Your task to perform on an android device: Open Google Chrome and click the shortcut for Amazon.com Image 0: 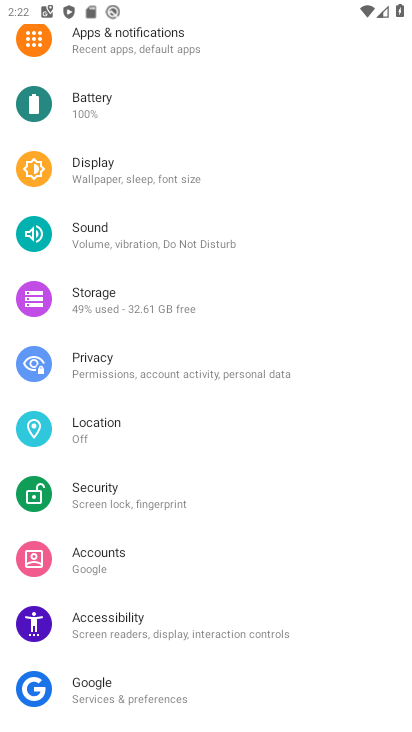
Step 0: press home button
Your task to perform on an android device: Open Google Chrome and click the shortcut for Amazon.com Image 1: 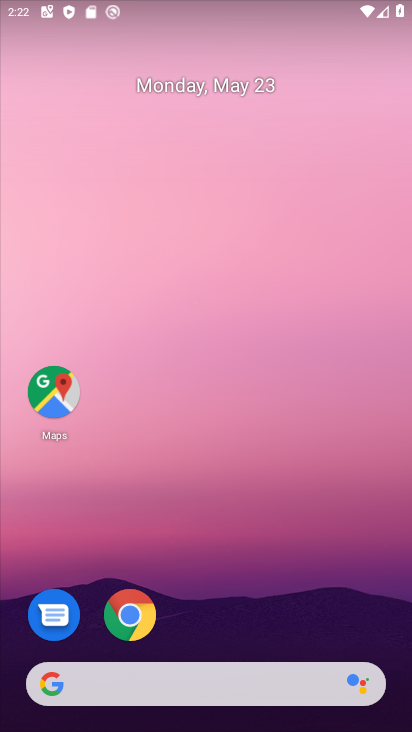
Step 1: click (123, 620)
Your task to perform on an android device: Open Google Chrome and click the shortcut for Amazon.com Image 2: 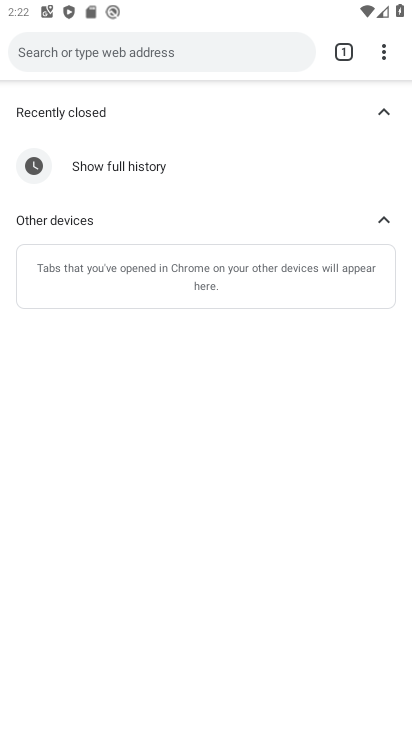
Step 2: click (384, 52)
Your task to perform on an android device: Open Google Chrome and click the shortcut for Amazon.com Image 3: 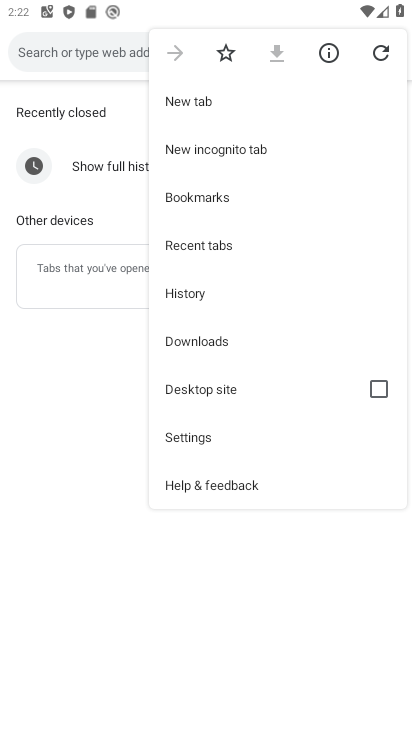
Step 3: click (184, 102)
Your task to perform on an android device: Open Google Chrome and click the shortcut for Amazon.com Image 4: 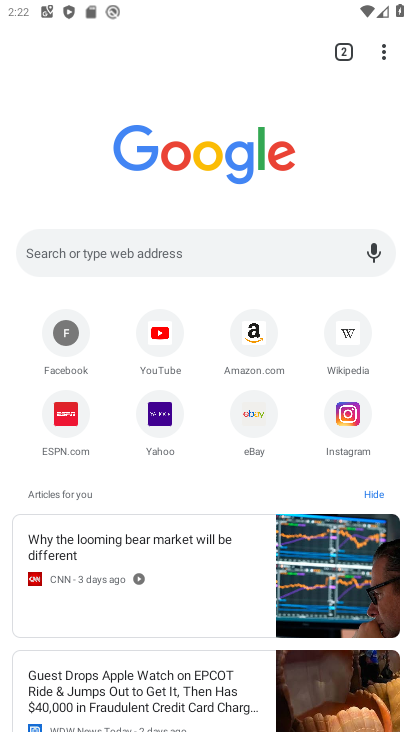
Step 4: click (256, 339)
Your task to perform on an android device: Open Google Chrome and click the shortcut for Amazon.com Image 5: 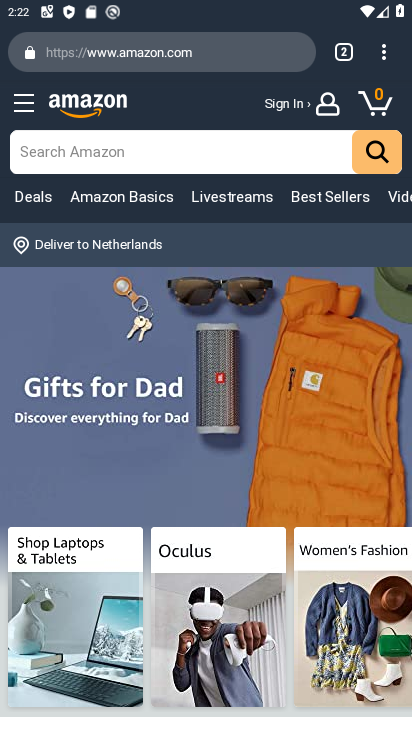
Step 5: task complete